Your task to perform on an android device: check google app version Image 0: 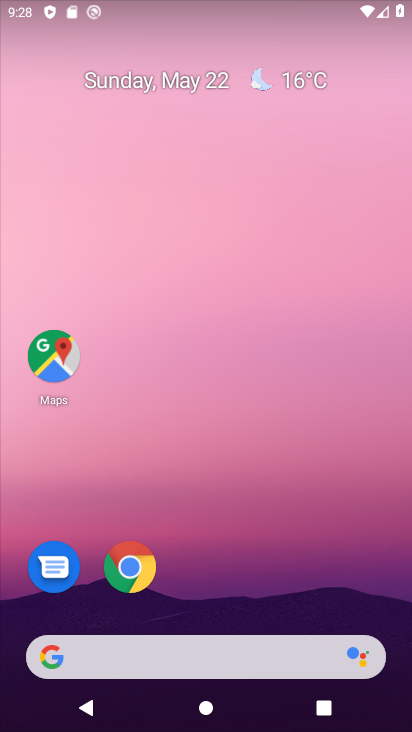
Step 0: drag from (227, 618) to (118, 46)
Your task to perform on an android device: check google app version Image 1: 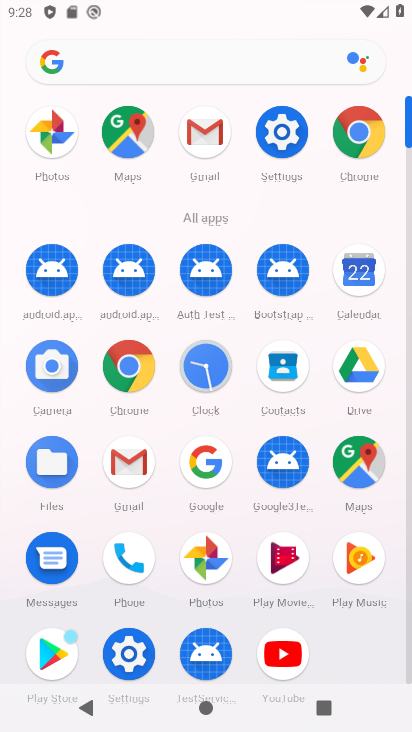
Step 1: click (205, 470)
Your task to perform on an android device: check google app version Image 2: 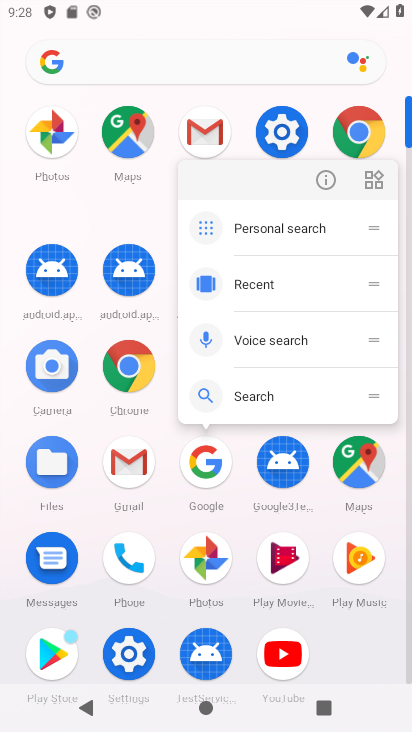
Step 2: click (326, 170)
Your task to perform on an android device: check google app version Image 3: 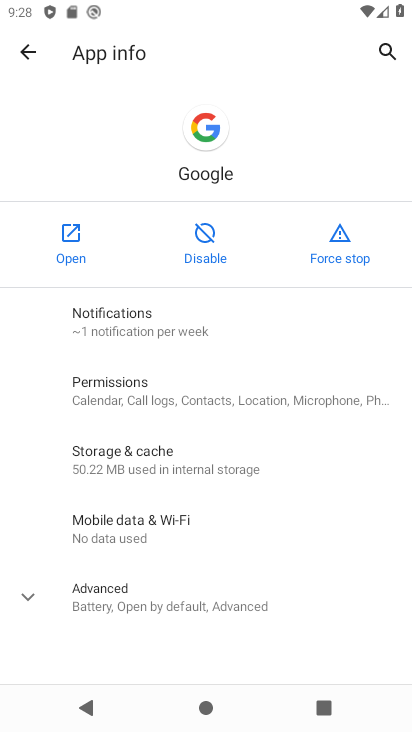
Step 3: click (129, 593)
Your task to perform on an android device: check google app version Image 4: 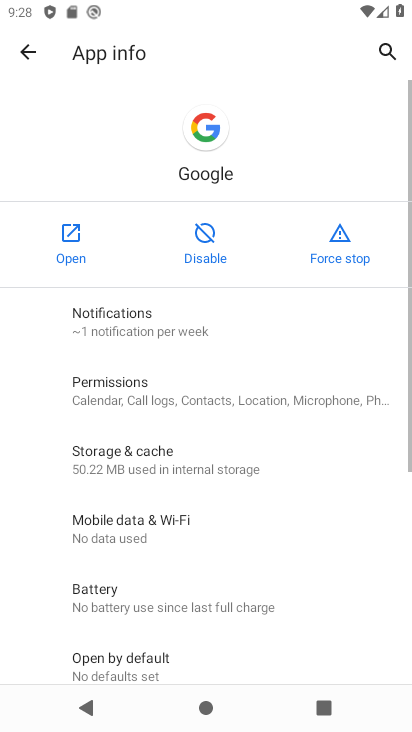
Step 4: task complete